Your task to perform on an android device: change your default location settings in chrome Image 0: 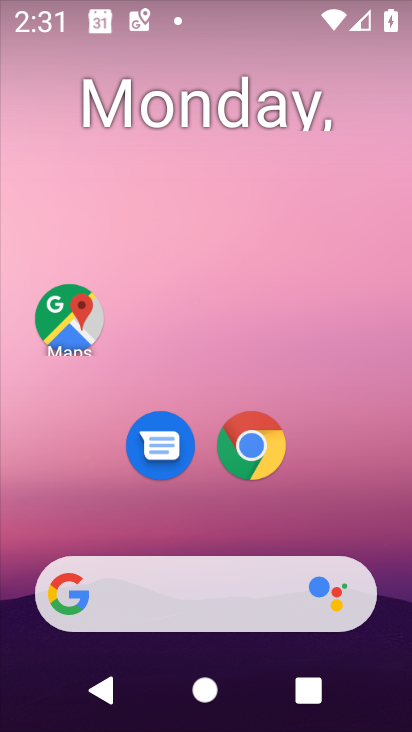
Step 0: click (257, 473)
Your task to perform on an android device: change your default location settings in chrome Image 1: 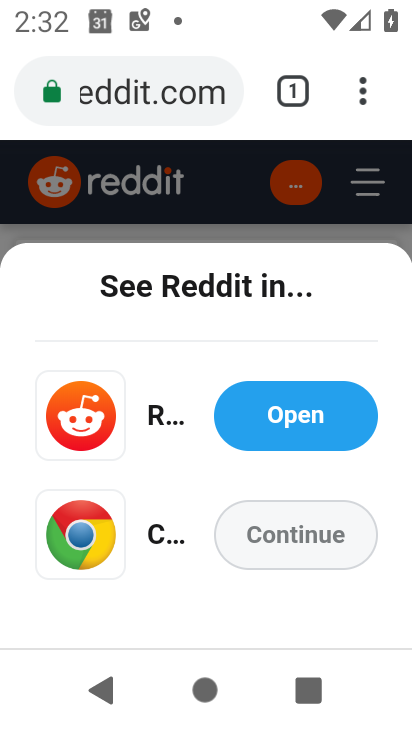
Step 1: press home button
Your task to perform on an android device: change your default location settings in chrome Image 2: 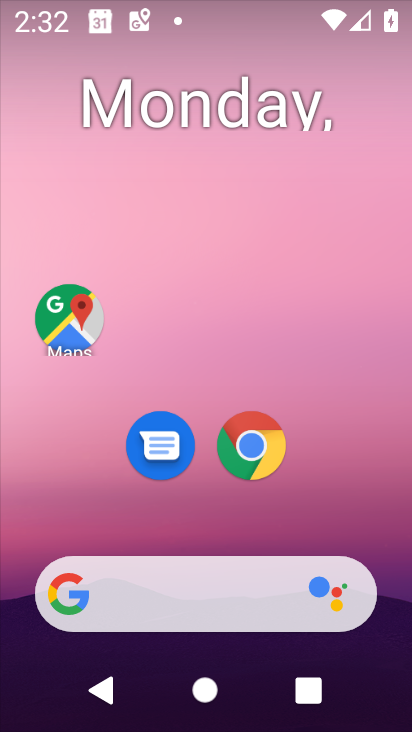
Step 2: click (255, 456)
Your task to perform on an android device: change your default location settings in chrome Image 3: 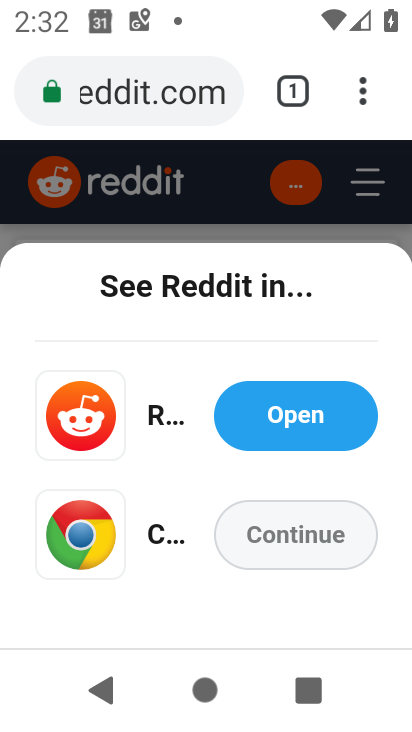
Step 3: drag from (360, 107) to (193, 487)
Your task to perform on an android device: change your default location settings in chrome Image 4: 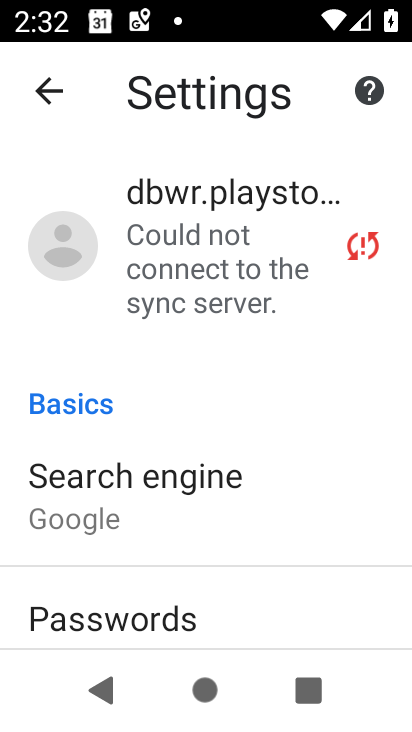
Step 4: click (200, 521)
Your task to perform on an android device: change your default location settings in chrome Image 5: 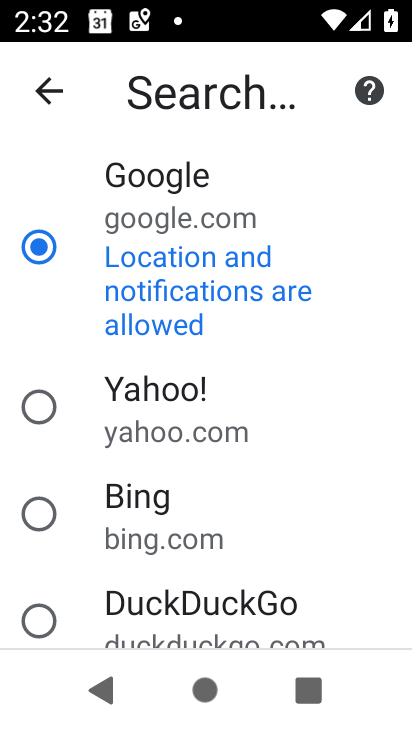
Step 5: click (240, 444)
Your task to perform on an android device: change your default location settings in chrome Image 6: 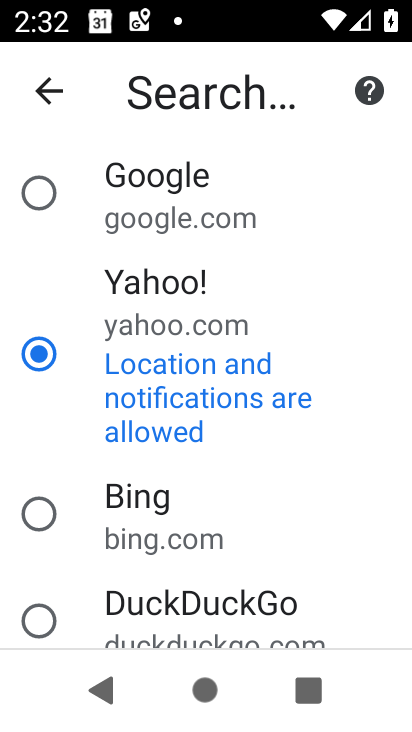
Step 6: task complete